Your task to perform on an android device: create a new album in the google photos Image 0: 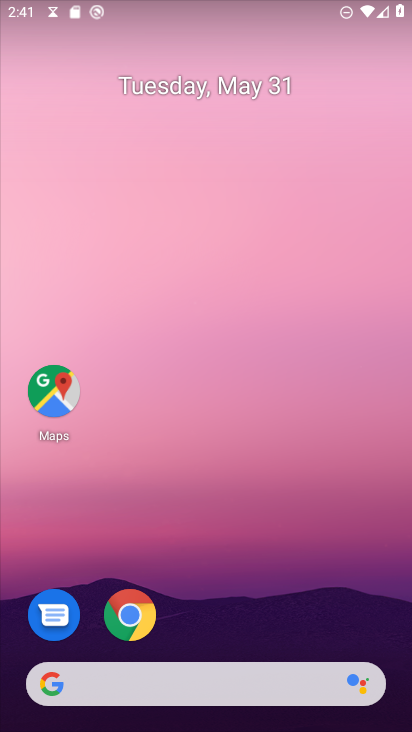
Step 0: drag from (308, 705) to (259, 91)
Your task to perform on an android device: create a new album in the google photos Image 1: 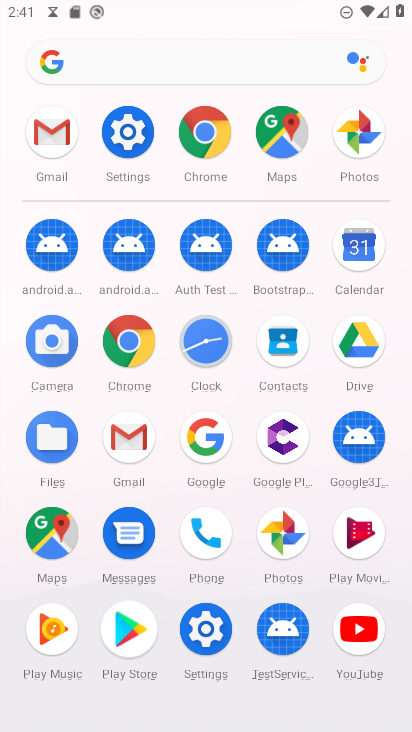
Step 1: click (278, 537)
Your task to perform on an android device: create a new album in the google photos Image 2: 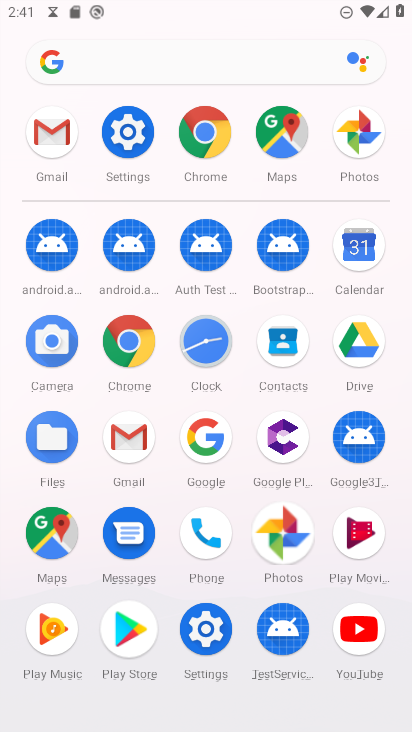
Step 2: click (279, 537)
Your task to perform on an android device: create a new album in the google photos Image 3: 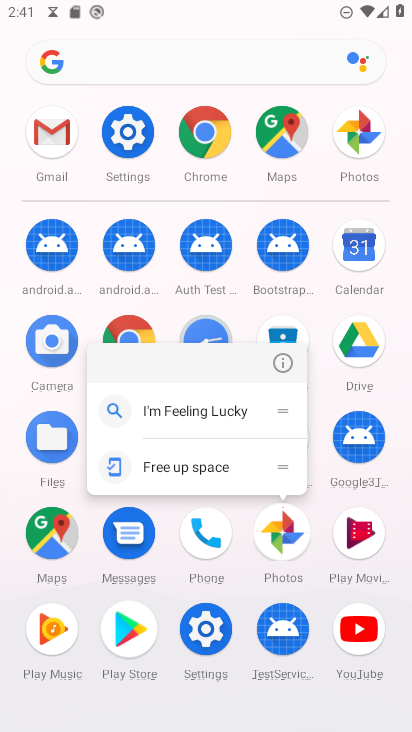
Step 3: click (279, 537)
Your task to perform on an android device: create a new album in the google photos Image 4: 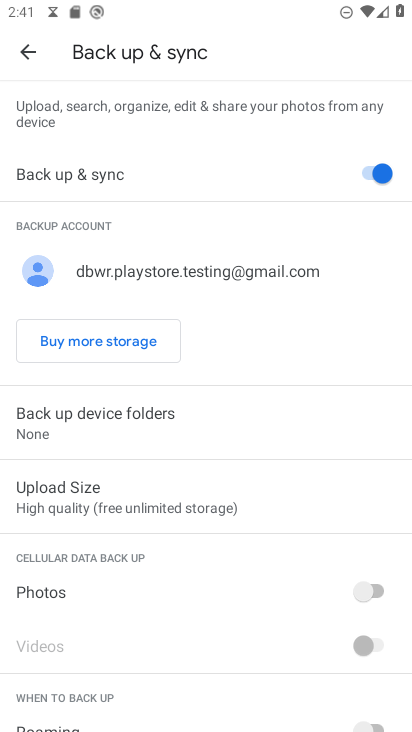
Step 4: click (23, 51)
Your task to perform on an android device: create a new album in the google photos Image 5: 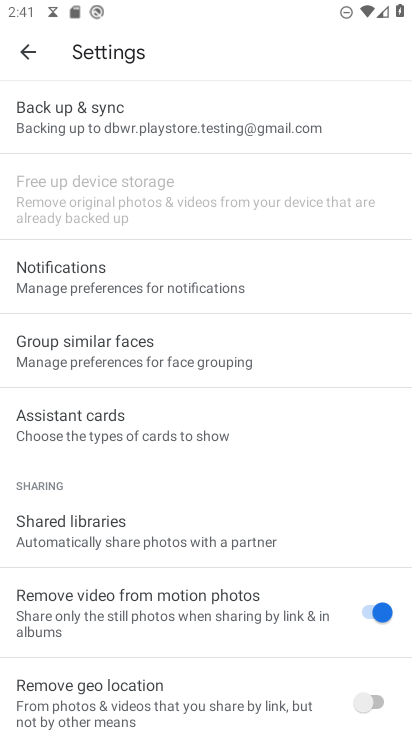
Step 5: click (40, 50)
Your task to perform on an android device: create a new album in the google photos Image 6: 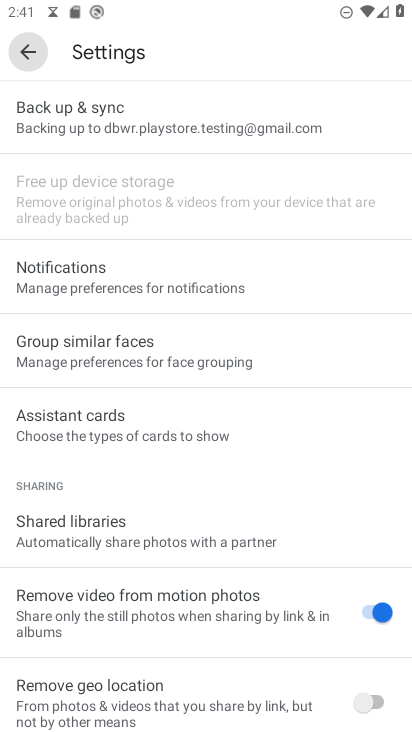
Step 6: click (40, 50)
Your task to perform on an android device: create a new album in the google photos Image 7: 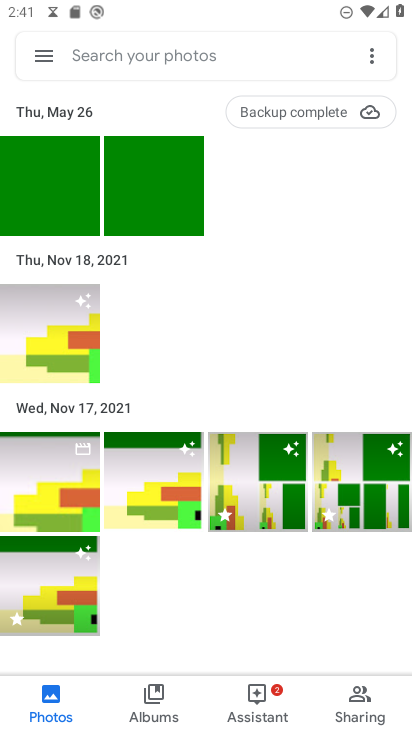
Step 7: click (368, 57)
Your task to perform on an android device: create a new album in the google photos Image 8: 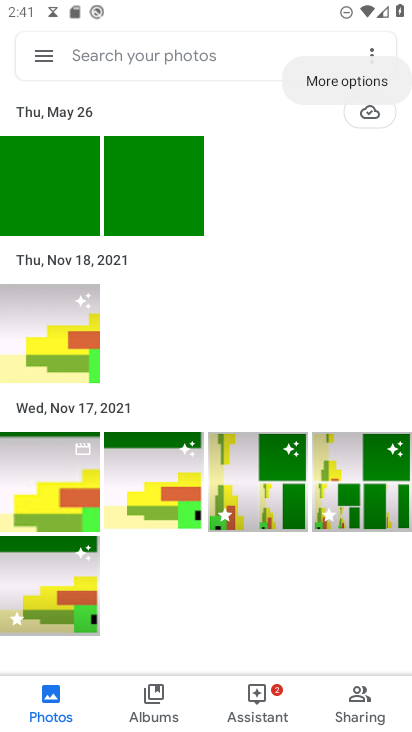
Step 8: click (368, 57)
Your task to perform on an android device: create a new album in the google photos Image 9: 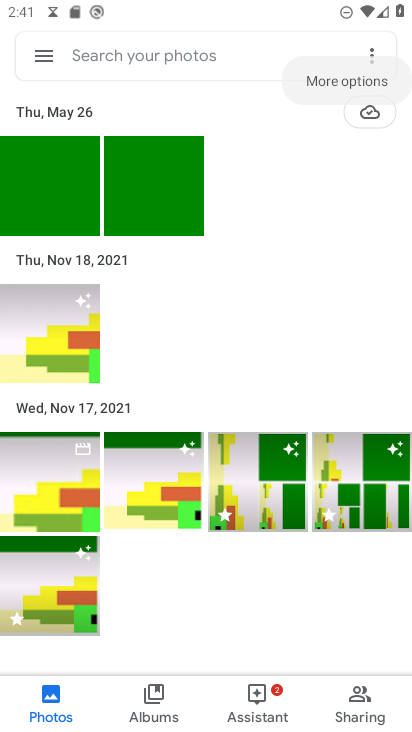
Step 9: click (368, 57)
Your task to perform on an android device: create a new album in the google photos Image 10: 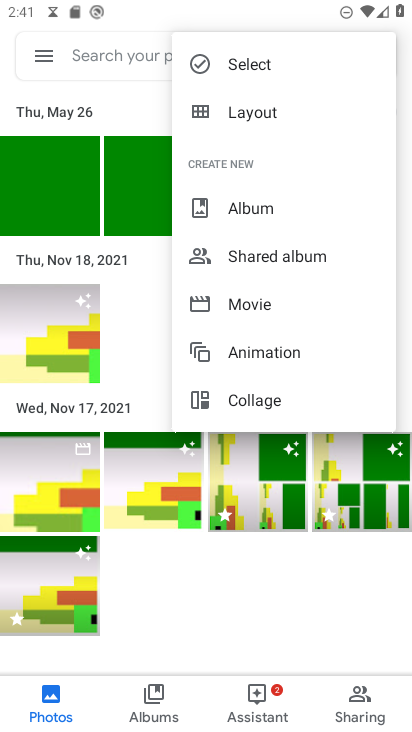
Step 10: click (236, 208)
Your task to perform on an android device: create a new album in the google photos Image 11: 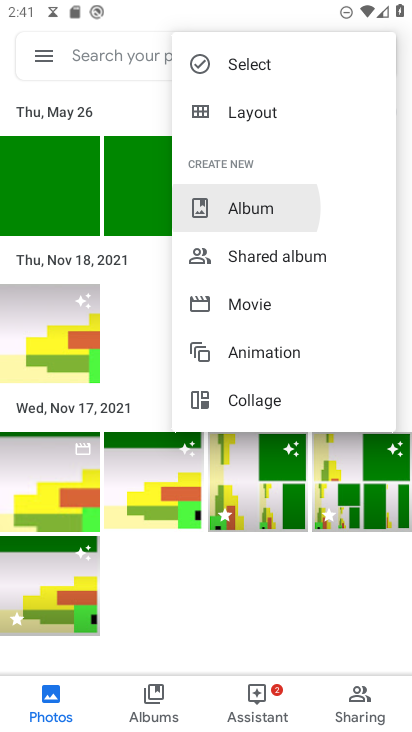
Step 11: click (237, 209)
Your task to perform on an android device: create a new album in the google photos Image 12: 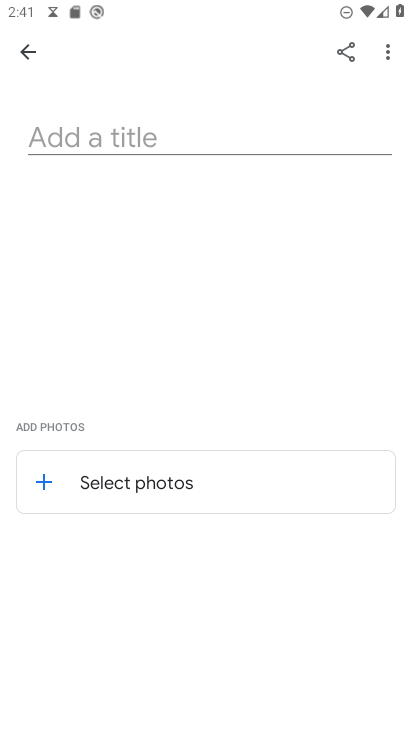
Step 12: click (59, 135)
Your task to perform on an android device: create a new album in the google photos Image 13: 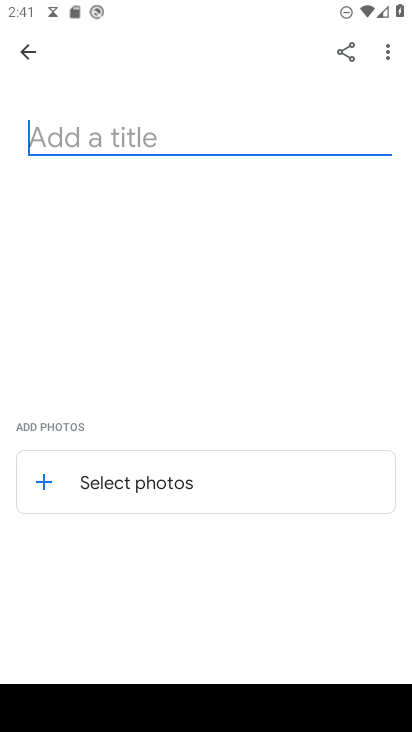
Step 13: type "cmbvvnxdnbv"
Your task to perform on an android device: create a new album in the google photos Image 14: 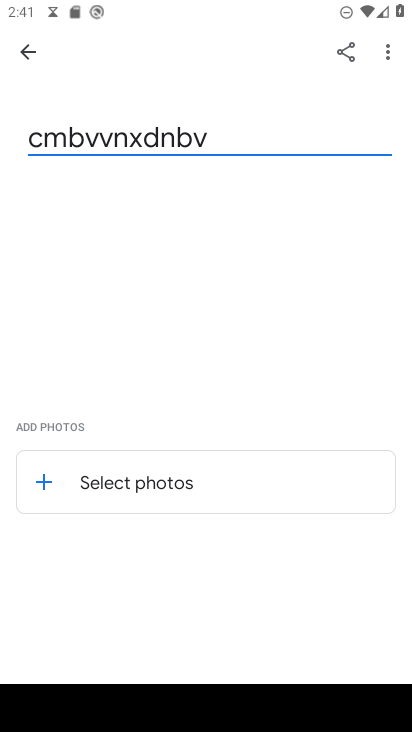
Step 14: click (98, 481)
Your task to perform on an android device: create a new album in the google photos Image 15: 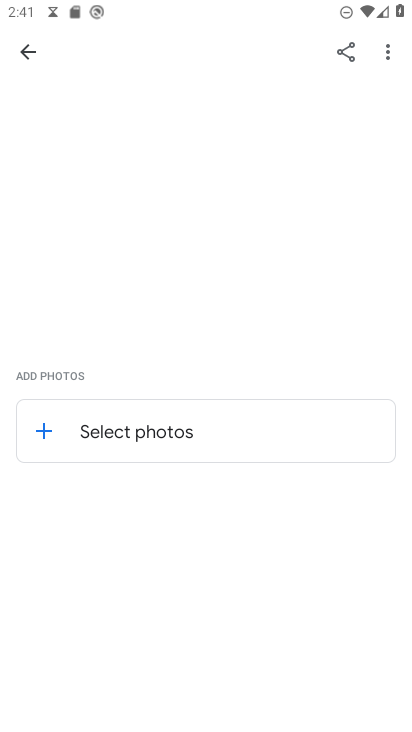
Step 15: click (38, 435)
Your task to perform on an android device: create a new album in the google photos Image 16: 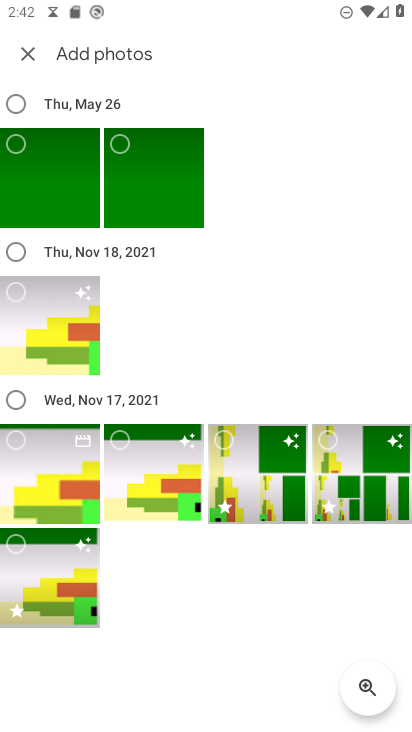
Step 16: click (6, 96)
Your task to perform on an android device: create a new album in the google photos Image 17: 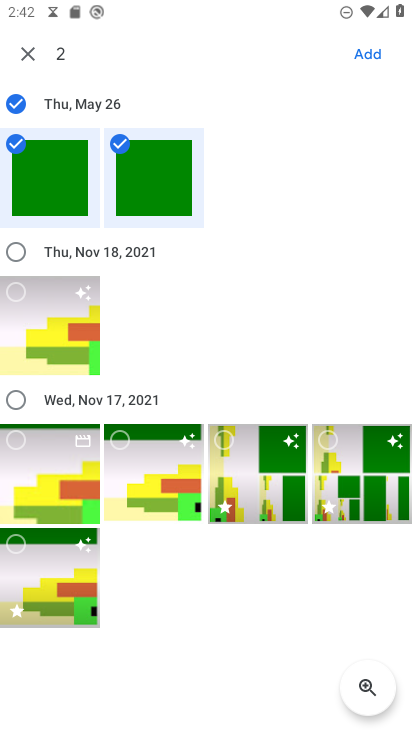
Step 17: click (363, 62)
Your task to perform on an android device: create a new album in the google photos Image 18: 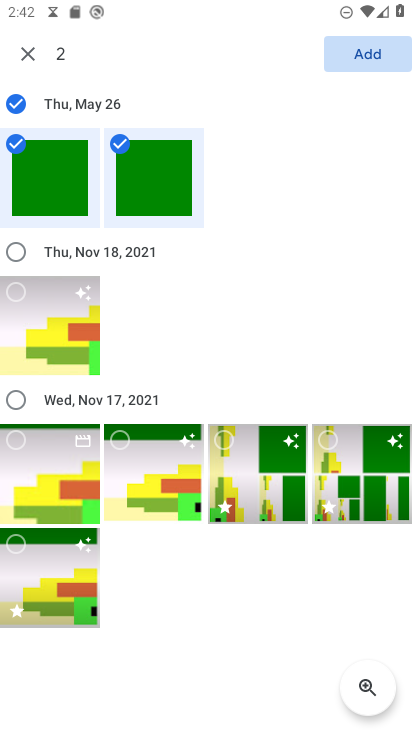
Step 18: click (365, 61)
Your task to perform on an android device: create a new album in the google photos Image 19: 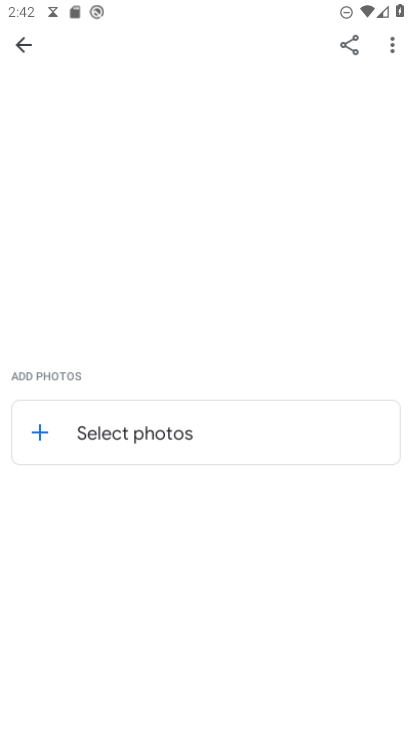
Step 19: click (365, 61)
Your task to perform on an android device: create a new album in the google photos Image 20: 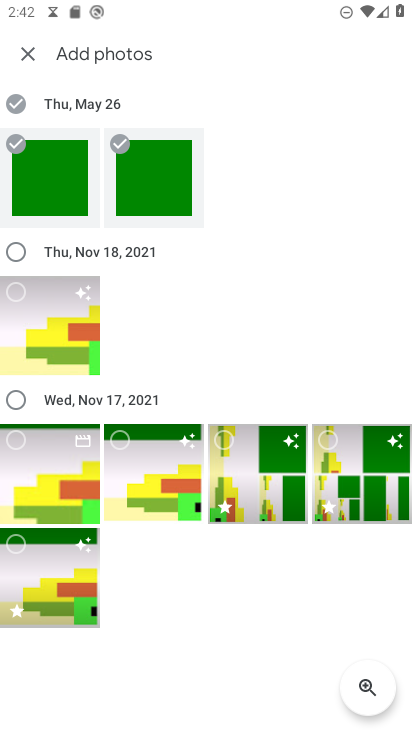
Step 20: task complete